Your task to perform on an android device: toggle javascript in the chrome app Image 0: 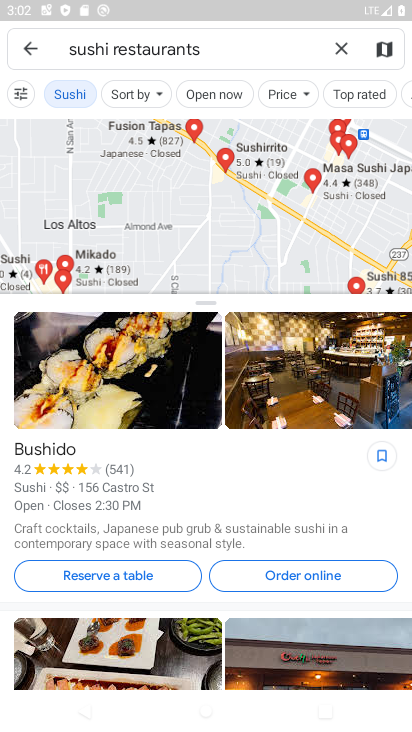
Step 0: press home button
Your task to perform on an android device: toggle javascript in the chrome app Image 1: 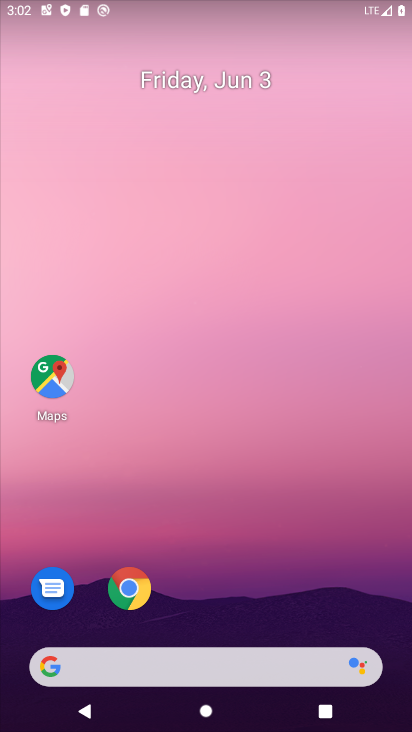
Step 1: drag from (9, 587) to (260, 126)
Your task to perform on an android device: toggle javascript in the chrome app Image 2: 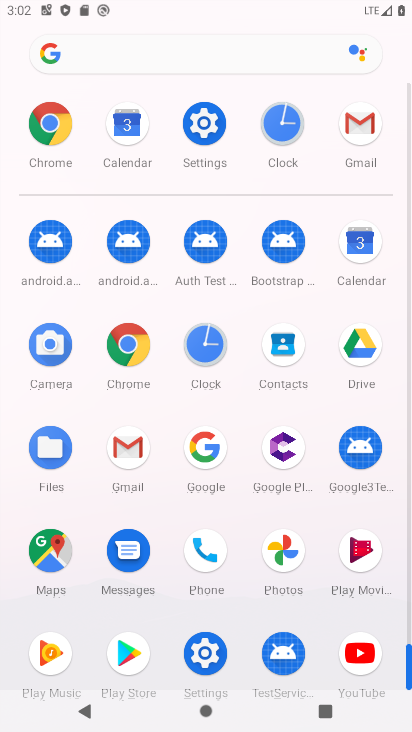
Step 2: click (49, 115)
Your task to perform on an android device: toggle javascript in the chrome app Image 3: 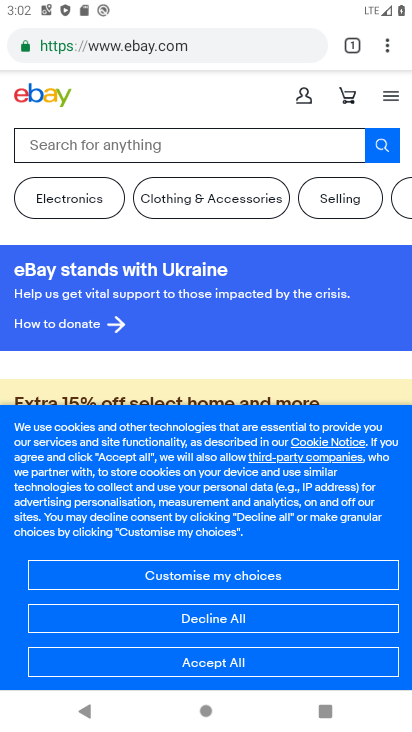
Step 3: click (390, 44)
Your task to perform on an android device: toggle javascript in the chrome app Image 4: 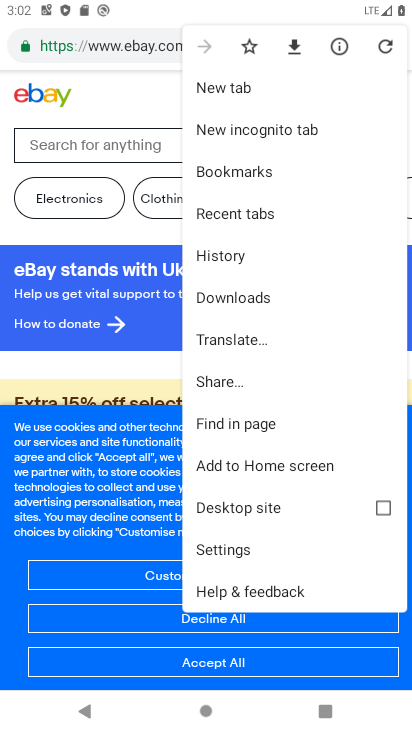
Step 4: click (239, 542)
Your task to perform on an android device: toggle javascript in the chrome app Image 5: 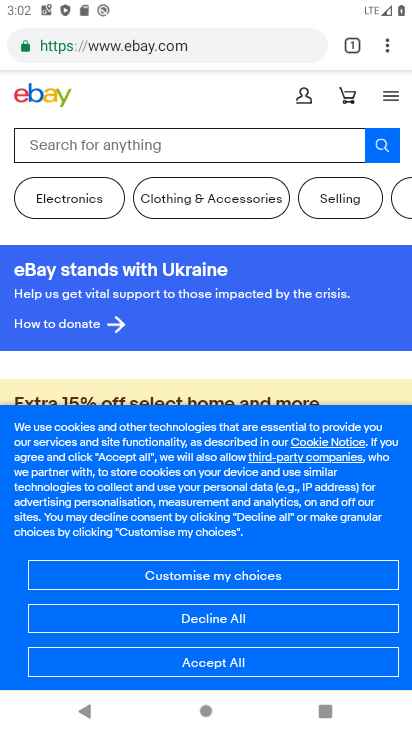
Step 5: click (385, 46)
Your task to perform on an android device: toggle javascript in the chrome app Image 6: 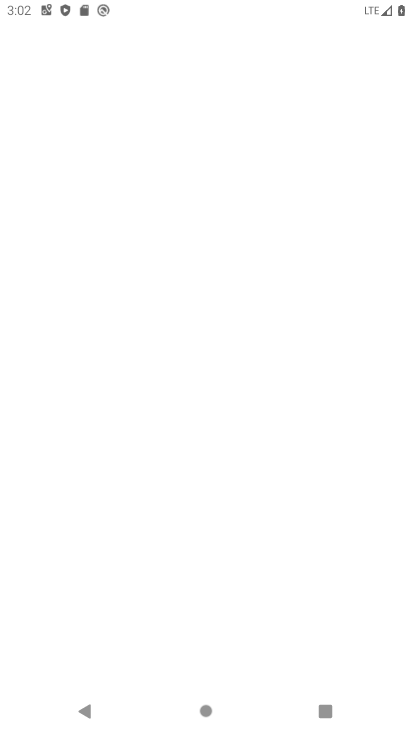
Step 6: click (58, 602)
Your task to perform on an android device: toggle javascript in the chrome app Image 7: 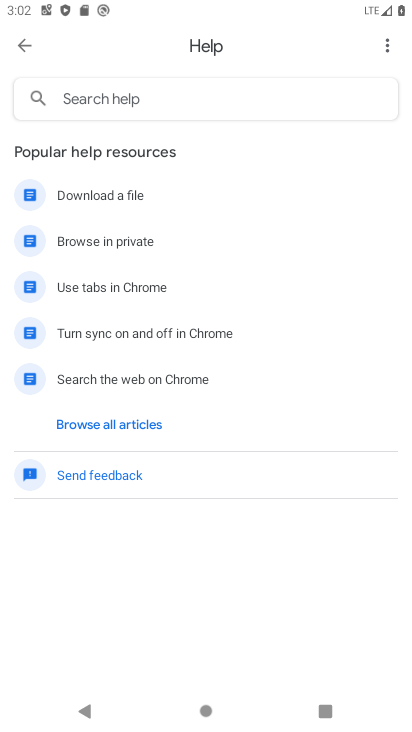
Step 7: press back button
Your task to perform on an android device: toggle javascript in the chrome app Image 8: 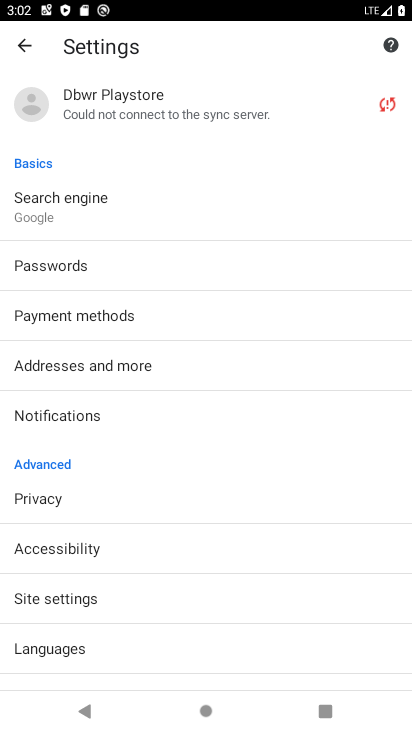
Step 8: click (36, 589)
Your task to perform on an android device: toggle javascript in the chrome app Image 9: 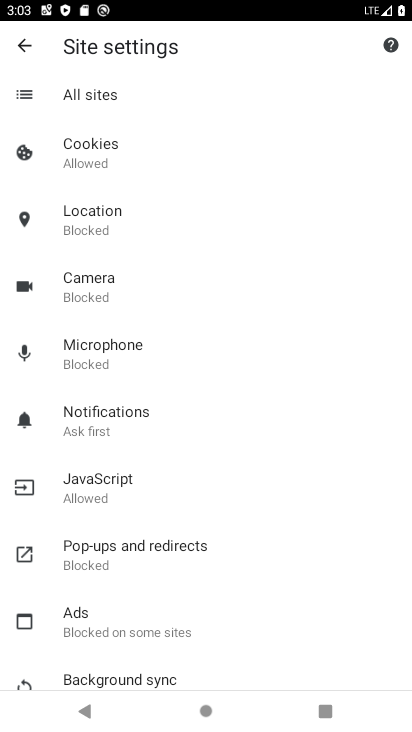
Step 9: click (95, 474)
Your task to perform on an android device: toggle javascript in the chrome app Image 10: 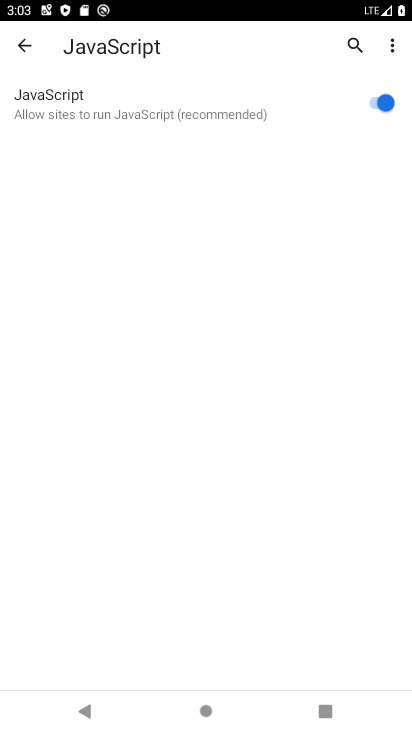
Step 10: click (392, 101)
Your task to perform on an android device: toggle javascript in the chrome app Image 11: 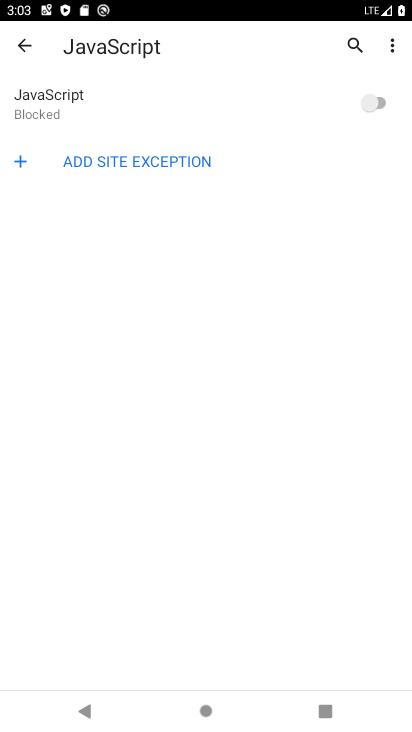
Step 11: task complete